Your task to perform on an android device: empty trash in google photos Image 0: 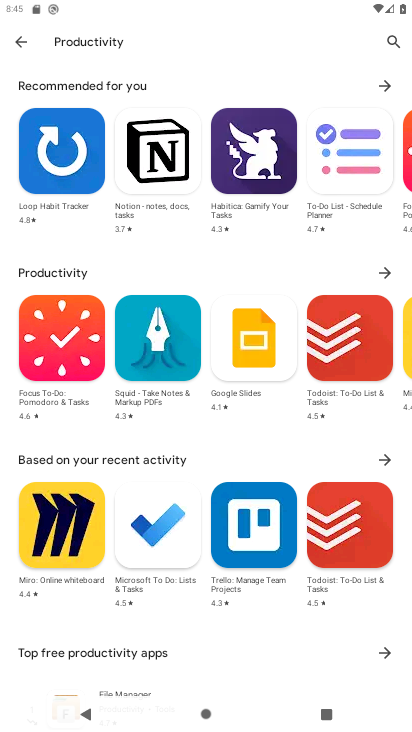
Step 0: press back button
Your task to perform on an android device: empty trash in google photos Image 1: 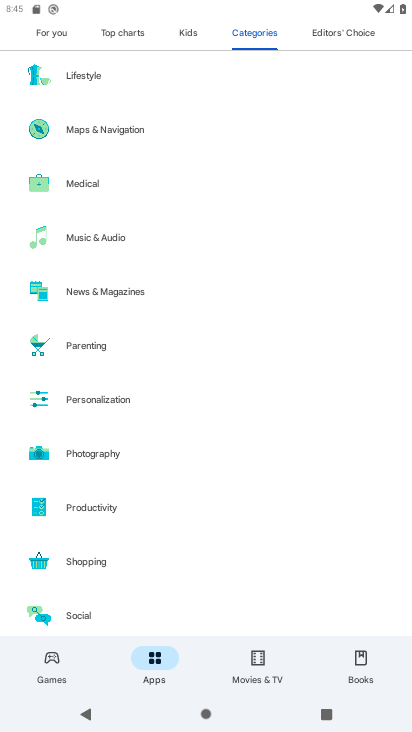
Step 1: press back button
Your task to perform on an android device: empty trash in google photos Image 2: 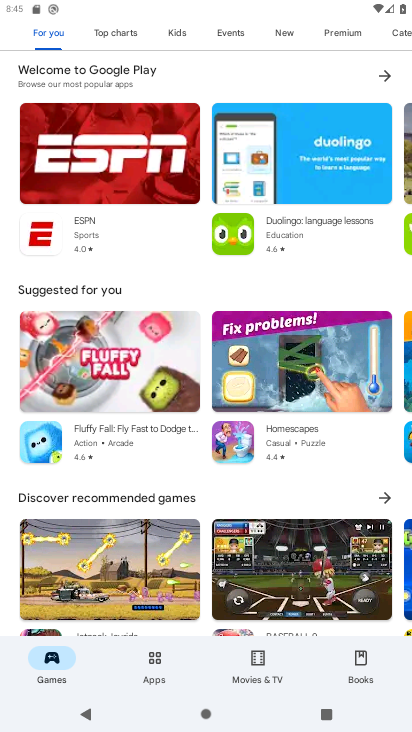
Step 2: press back button
Your task to perform on an android device: empty trash in google photos Image 3: 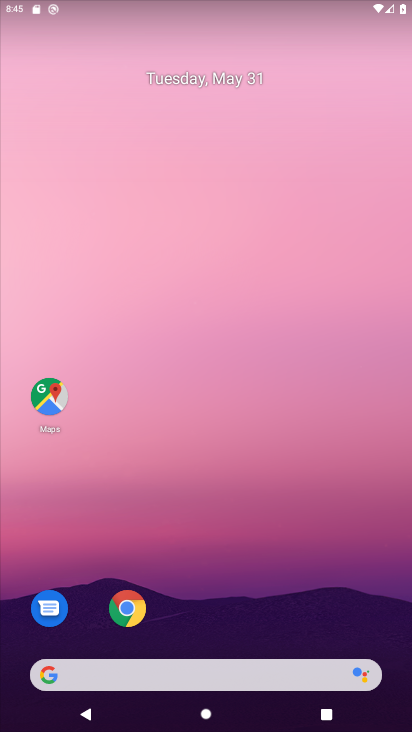
Step 3: drag from (228, 558) to (277, 98)
Your task to perform on an android device: empty trash in google photos Image 4: 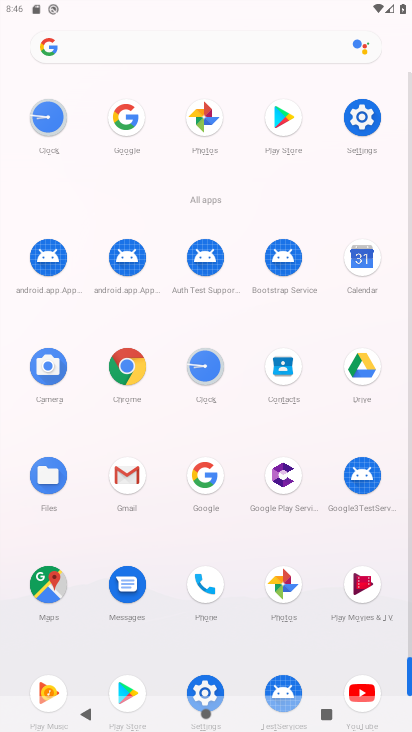
Step 4: click (205, 116)
Your task to perform on an android device: empty trash in google photos Image 5: 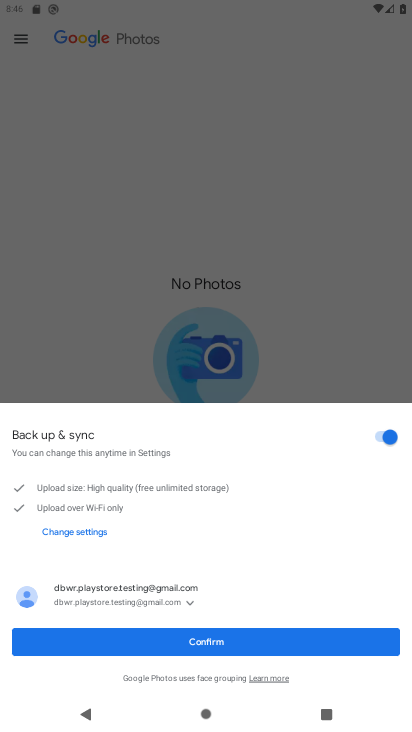
Step 5: click (192, 639)
Your task to perform on an android device: empty trash in google photos Image 6: 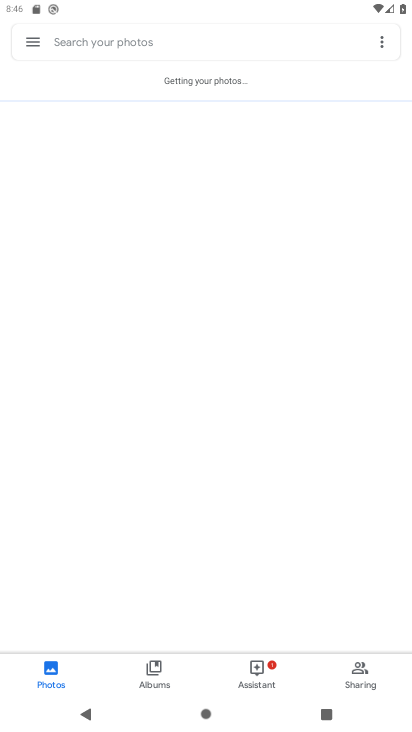
Step 6: click (32, 42)
Your task to perform on an android device: empty trash in google photos Image 7: 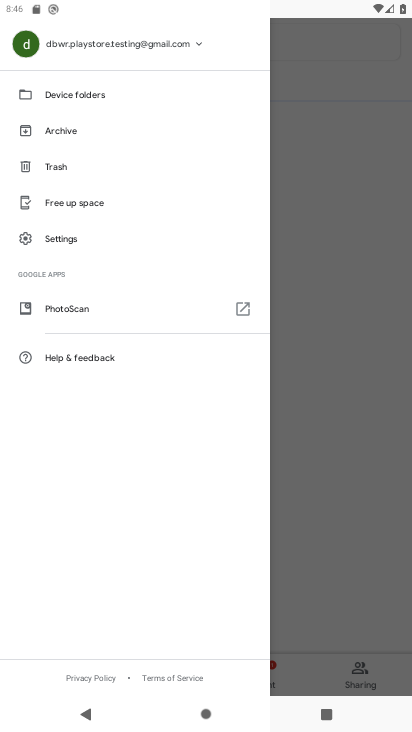
Step 7: click (58, 165)
Your task to perform on an android device: empty trash in google photos Image 8: 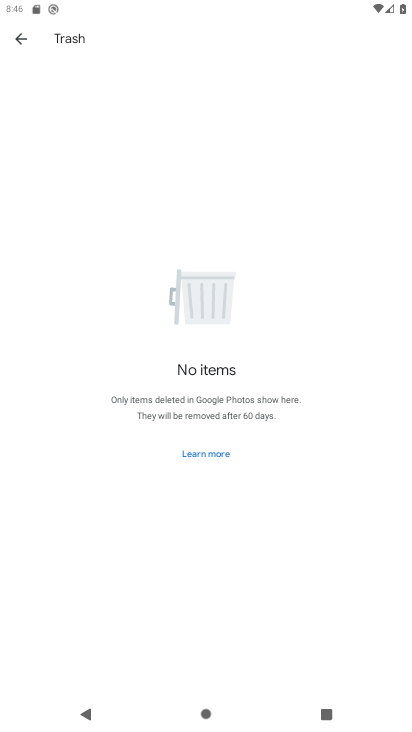
Step 8: task complete